Your task to perform on an android device: Play the last video I watched on Youtube Image 0: 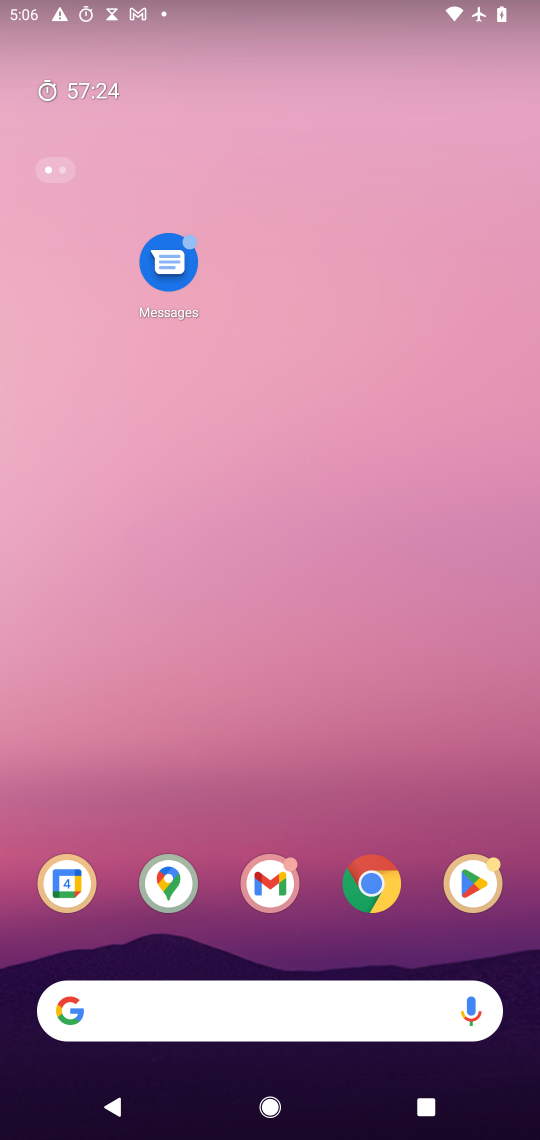
Step 0: drag from (314, 956) to (281, 56)
Your task to perform on an android device: Play the last video I watched on Youtube Image 1: 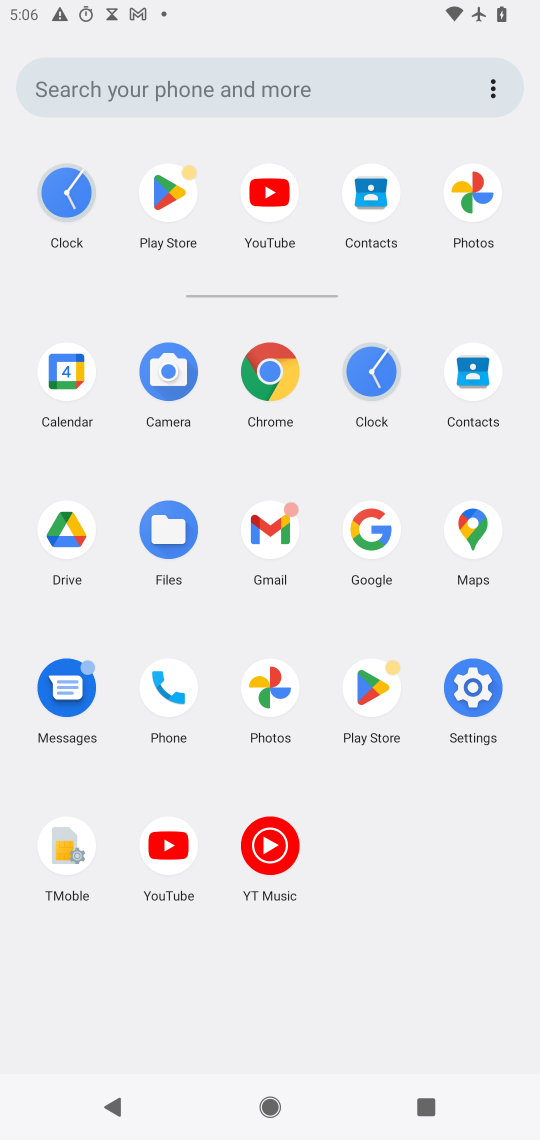
Step 1: click (178, 843)
Your task to perform on an android device: Play the last video I watched on Youtube Image 2: 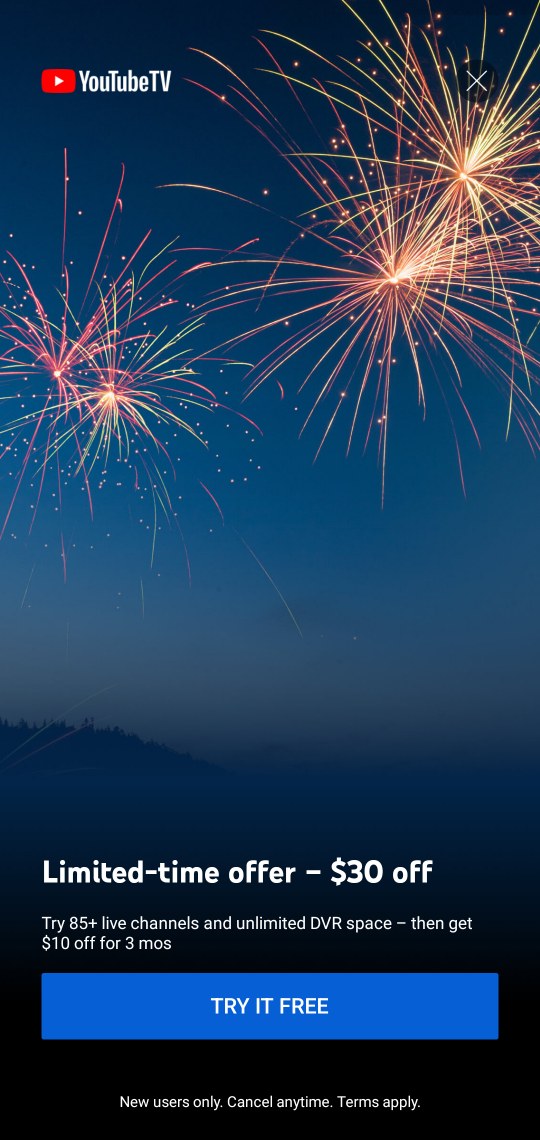
Step 2: task complete